Your task to perform on an android device: Search for "jbl charge 4" on newegg, select the first entry, add it to the cart, then select checkout. Image 0: 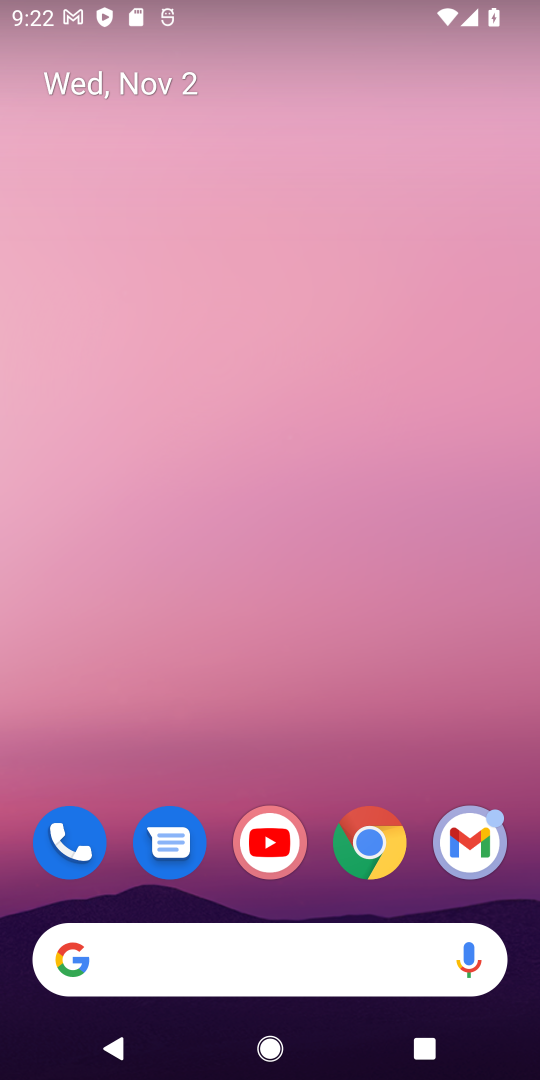
Step 0: drag from (275, 907) to (454, 73)
Your task to perform on an android device: Search for "jbl charge 4" on newegg, select the first entry, add it to the cart, then select checkout. Image 1: 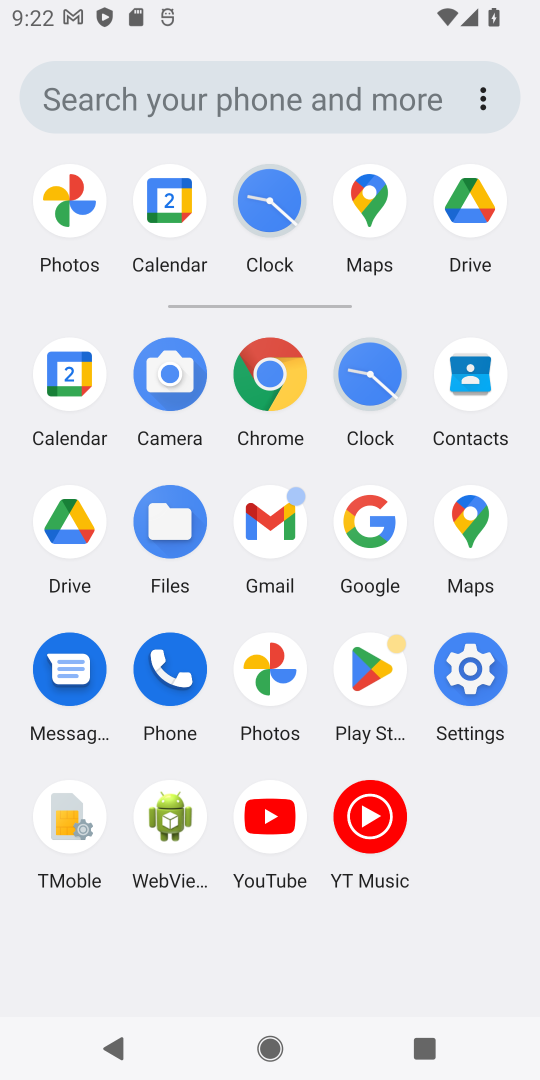
Step 1: click (364, 520)
Your task to perform on an android device: Search for "jbl charge 4" on newegg, select the first entry, add it to the cart, then select checkout. Image 2: 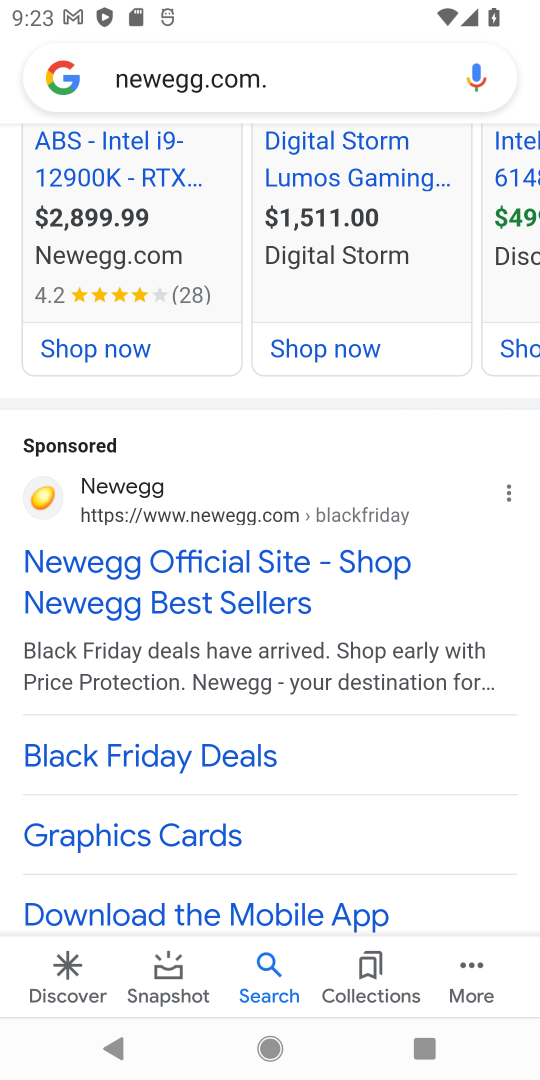
Step 2: click (41, 508)
Your task to perform on an android device: Search for "jbl charge 4" on newegg, select the first entry, add it to the cart, then select checkout. Image 3: 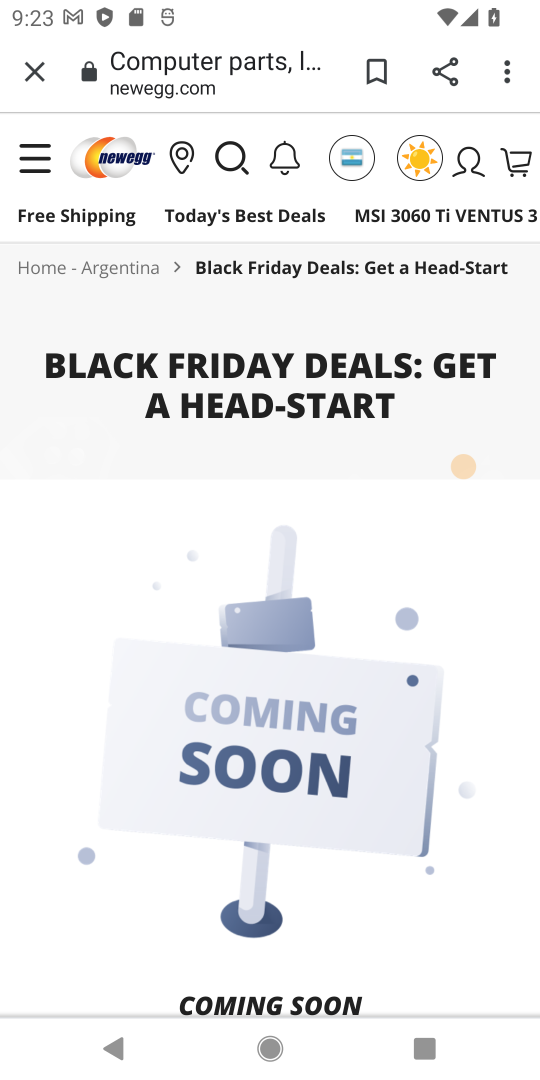
Step 3: click (231, 164)
Your task to perform on an android device: Search for "jbl charge 4" on newegg, select the first entry, add it to the cart, then select checkout. Image 4: 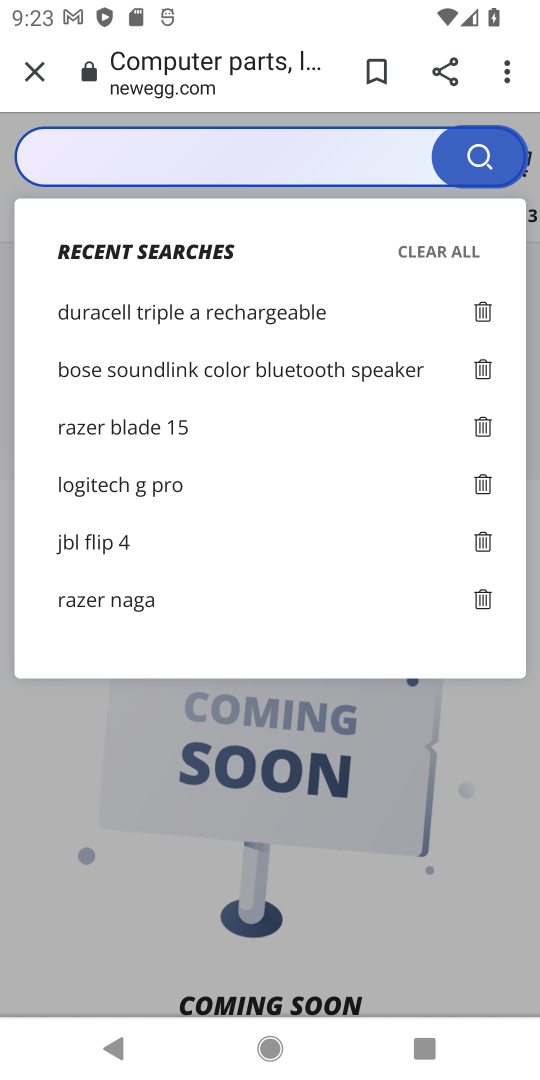
Step 4: click (378, 148)
Your task to perform on an android device: Search for "jbl charge 4" on newegg, select the first entry, add it to the cart, then select checkout. Image 5: 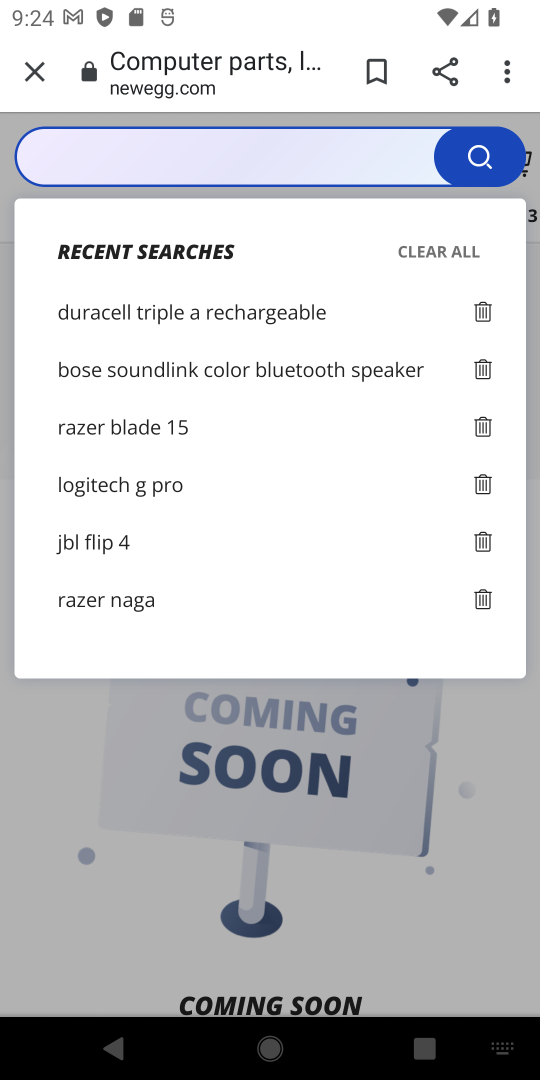
Step 5: type "jbl charge 4 "
Your task to perform on an android device: Search for "jbl charge 4" on newegg, select the first entry, add it to the cart, then select checkout. Image 6: 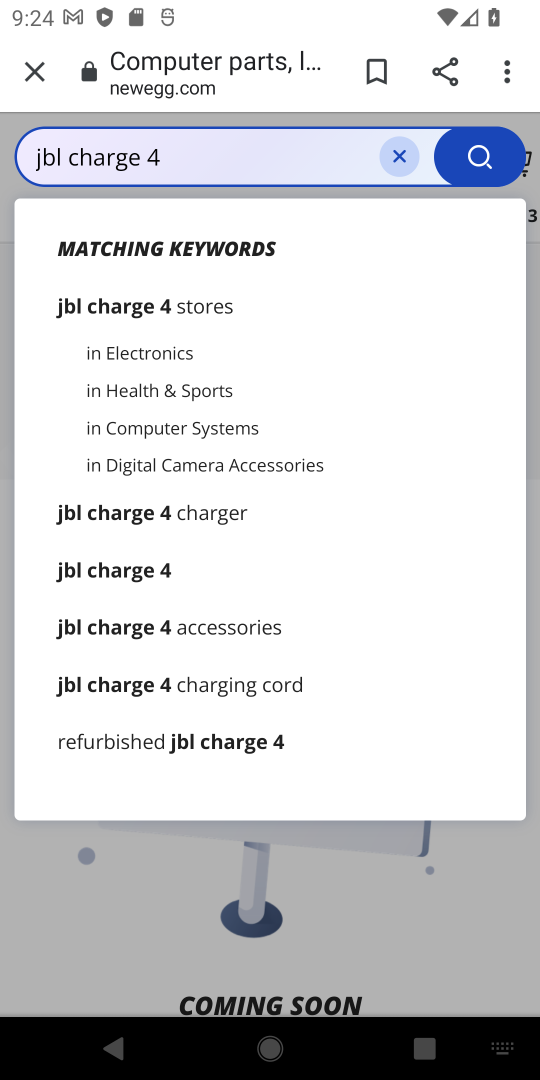
Step 6: click (94, 559)
Your task to perform on an android device: Search for "jbl charge 4" on newegg, select the first entry, add it to the cart, then select checkout. Image 7: 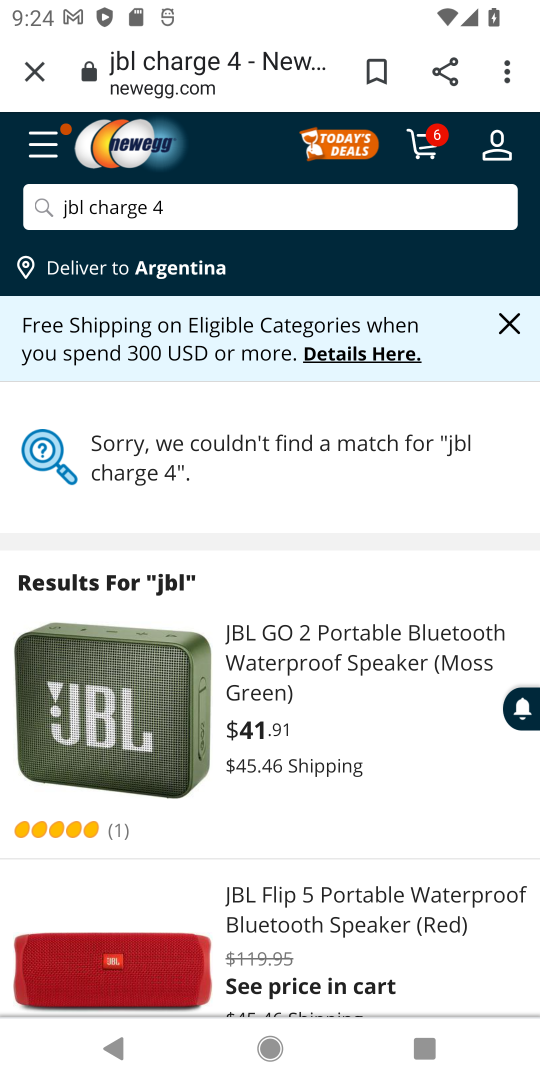
Step 7: drag from (291, 734) to (335, 432)
Your task to perform on an android device: Search for "jbl charge 4" on newegg, select the first entry, add it to the cart, then select checkout. Image 8: 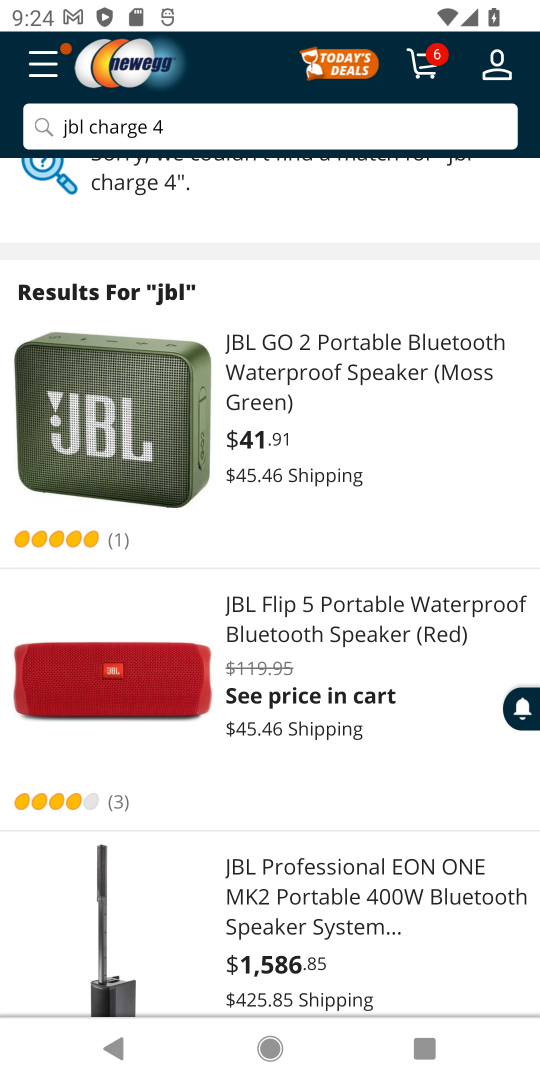
Step 8: drag from (308, 920) to (356, 471)
Your task to perform on an android device: Search for "jbl charge 4" on newegg, select the first entry, add it to the cart, then select checkout. Image 9: 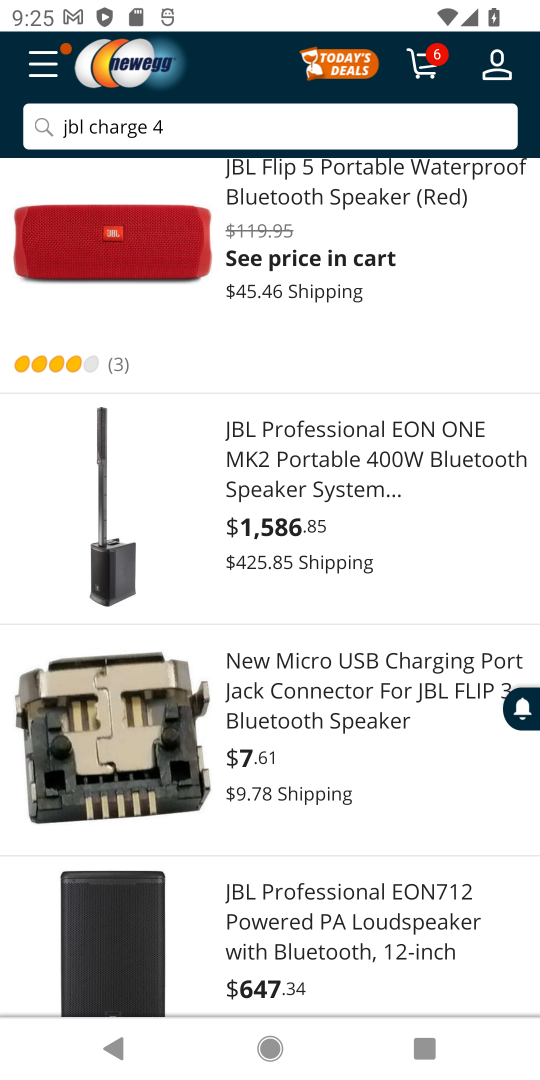
Step 9: drag from (186, 804) to (285, 318)
Your task to perform on an android device: Search for "jbl charge 4" on newegg, select the first entry, add it to the cart, then select checkout. Image 10: 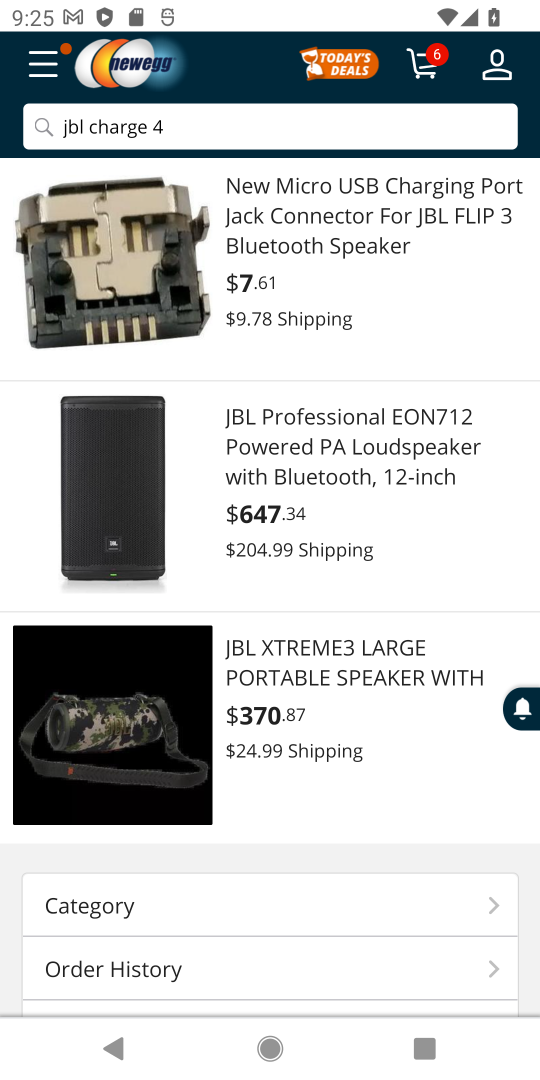
Step 10: drag from (212, 899) to (374, 150)
Your task to perform on an android device: Search for "jbl charge 4" on newegg, select the first entry, add it to the cart, then select checkout. Image 11: 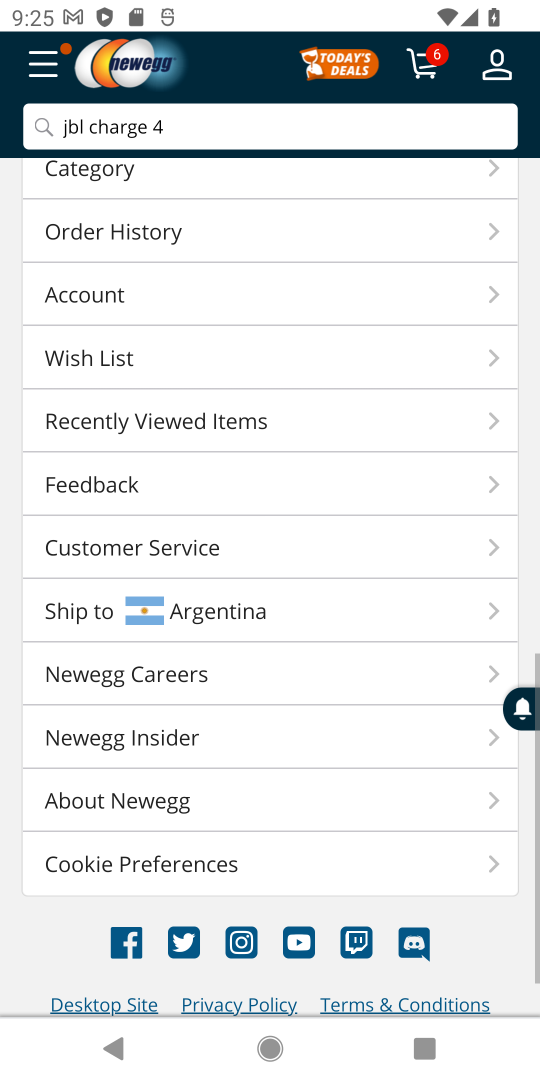
Step 11: drag from (268, 482) to (302, 982)
Your task to perform on an android device: Search for "jbl charge 4" on newegg, select the first entry, add it to the cart, then select checkout. Image 12: 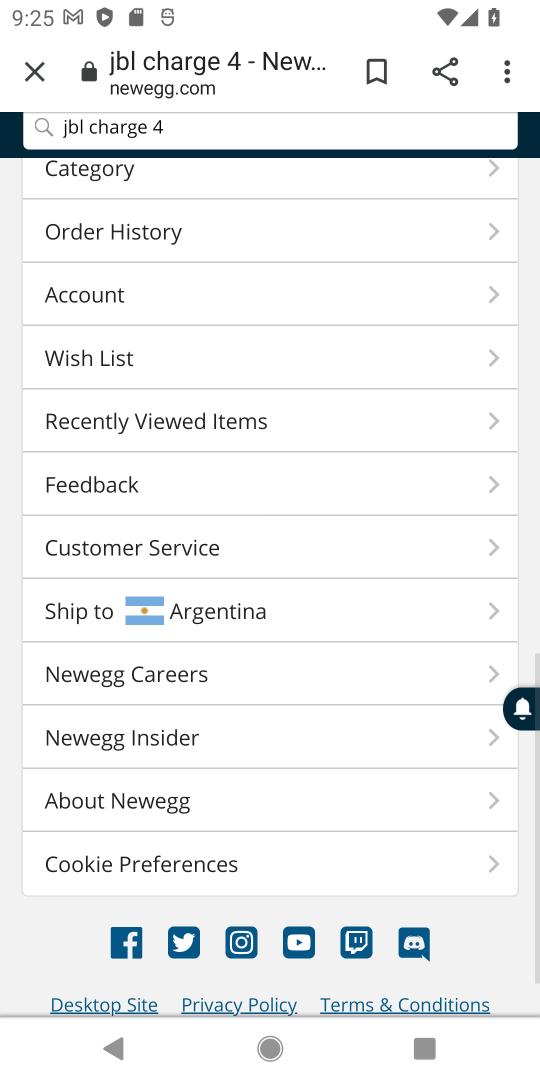
Step 12: drag from (318, 480) to (250, 693)
Your task to perform on an android device: Search for "jbl charge 4" on newegg, select the first entry, add it to the cart, then select checkout. Image 13: 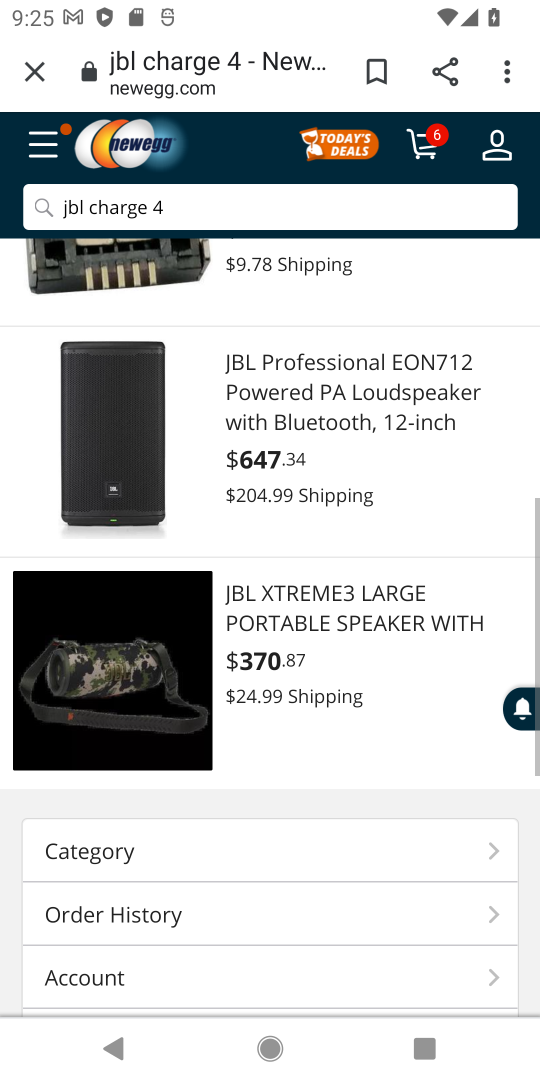
Step 13: drag from (258, 699) to (262, 869)
Your task to perform on an android device: Search for "jbl charge 4" on newegg, select the first entry, add it to the cart, then select checkout. Image 14: 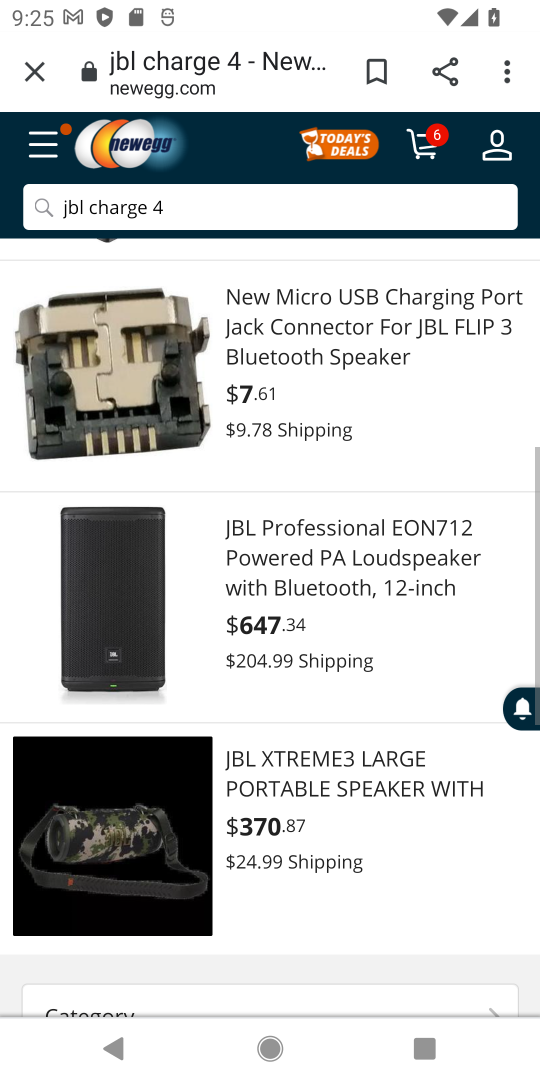
Step 14: drag from (282, 866) to (276, 969)
Your task to perform on an android device: Search for "jbl charge 4" on newegg, select the first entry, add it to the cart, then select checkout. Image 15: 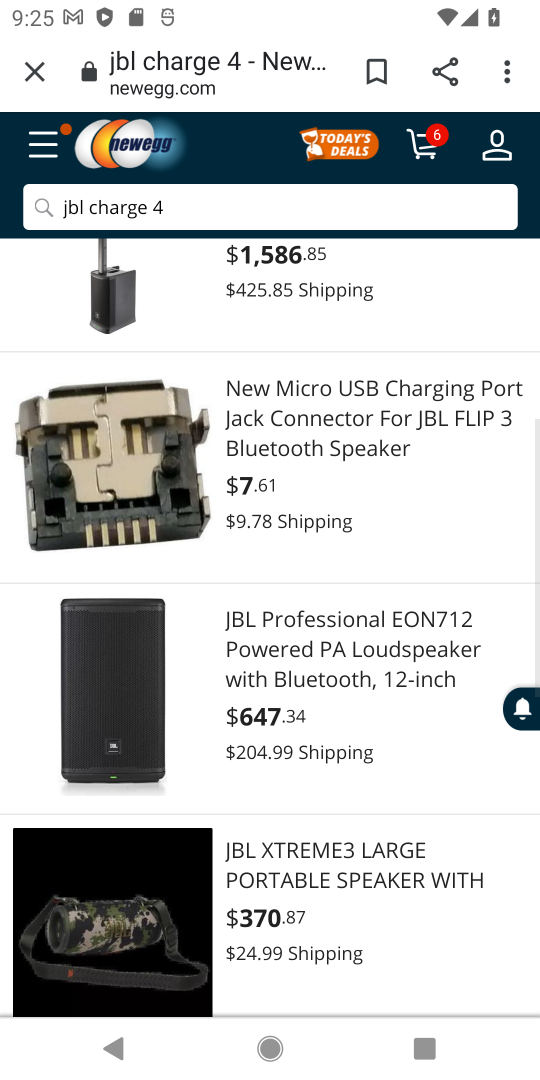
Step 15: drag from (303, 402) to (298, 863)
Your task to perform on an android device: Search for "jbl charge 4" on newegg, select the first entry, add it to the cart, then select checkout. Image 16: 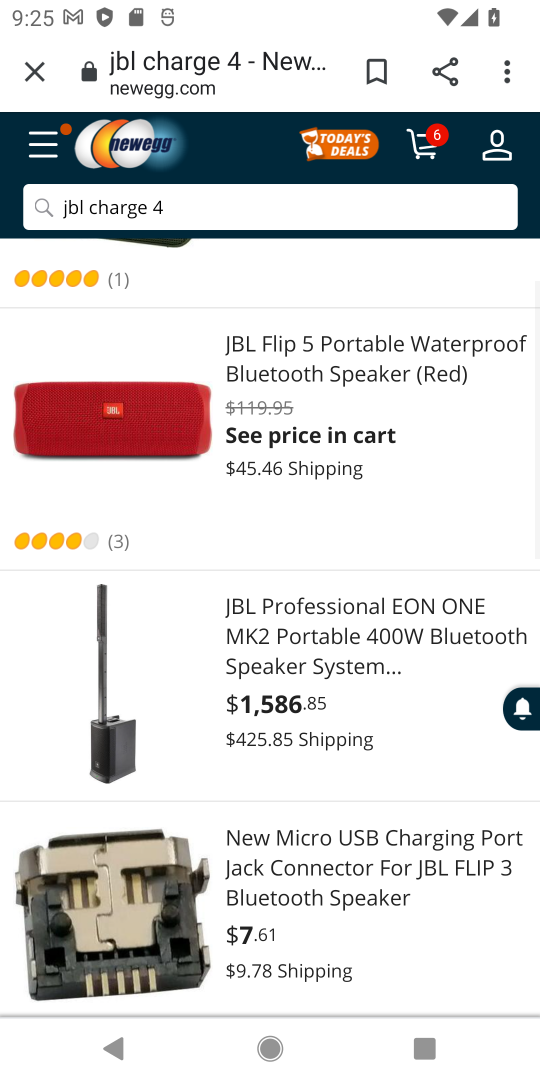
Step 16: drag from (233, 457) to (166, 1064)
Your task to perform on an android device: Search for "jbl charge 4" on newegg, select the first entry, add it to the cart, then select checkout. Image 17: 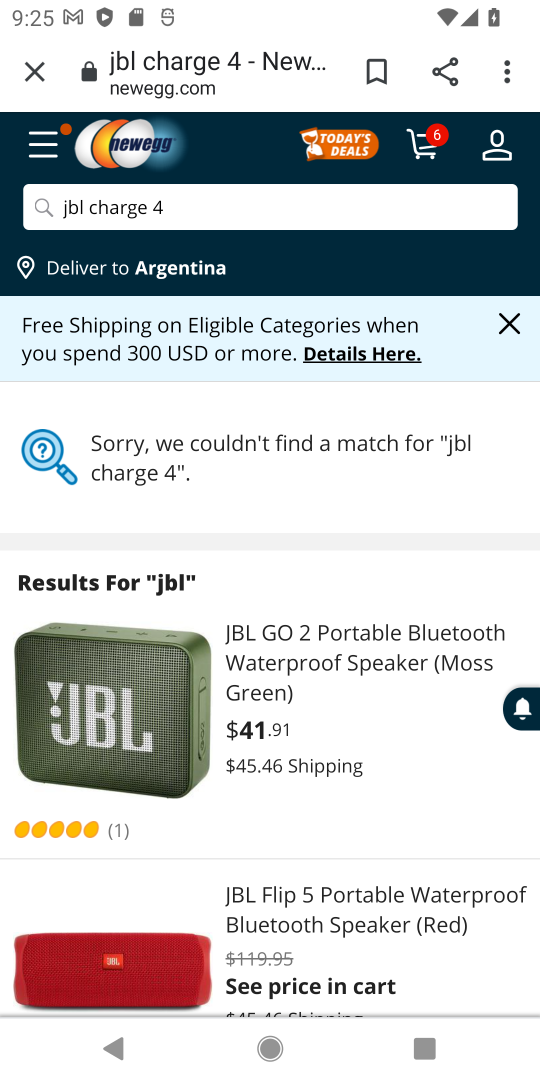
Step 17: click (247, 928)
Your task to perform on an android device: Search for "jbl charge 4" on newegg, select the first entry, add it to the cart, then select checkout. Image 18: 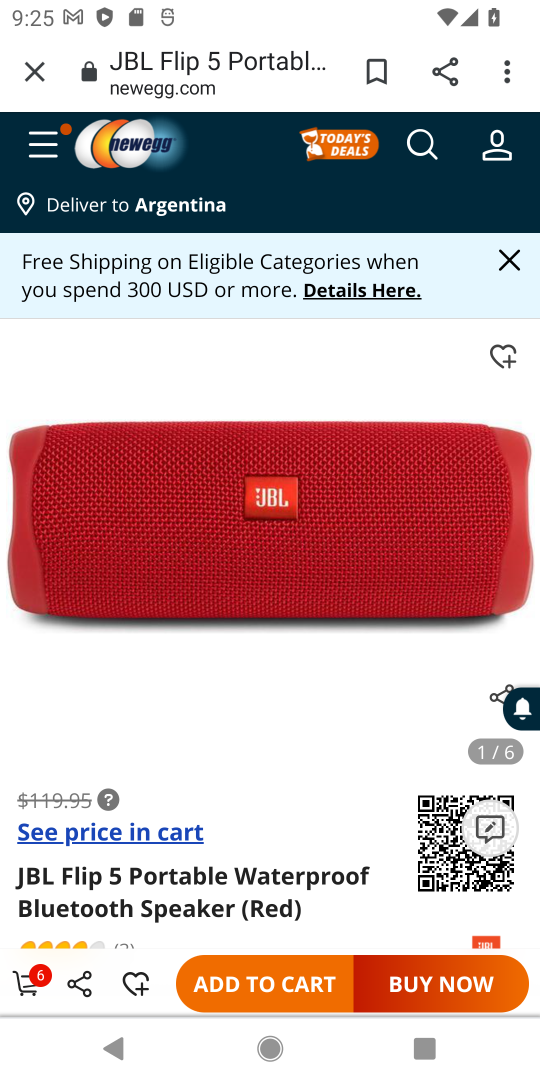
Step 18: click (232, 988)
Your task to perform on an android device: Search for "jbl charge 4" on newegg, select the first entry, add it to the cart, then select checkout. Image 19: 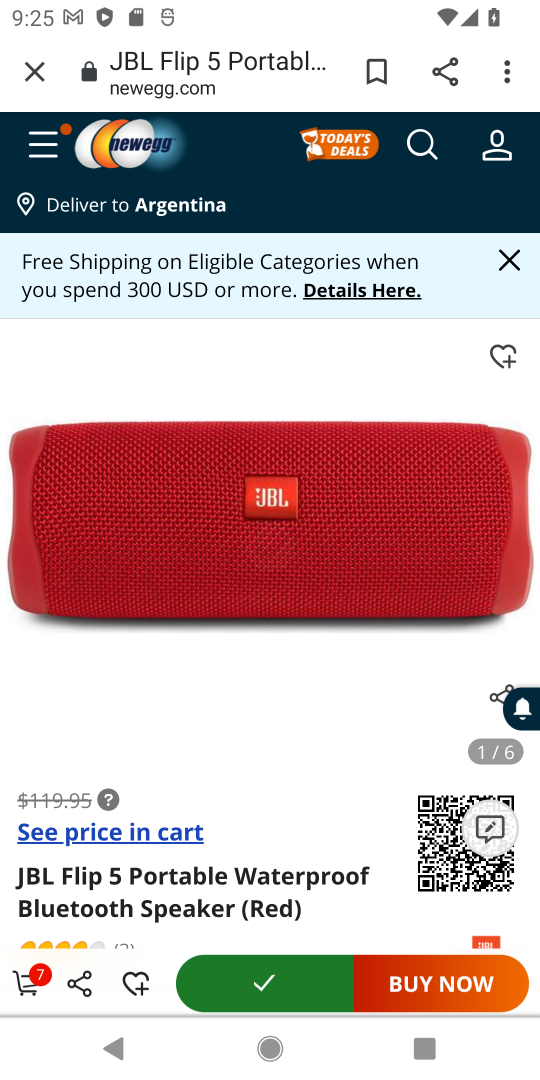
Step 19: task complete